Your task to perform on an android device: Do I have any events this weekend? Image 0: 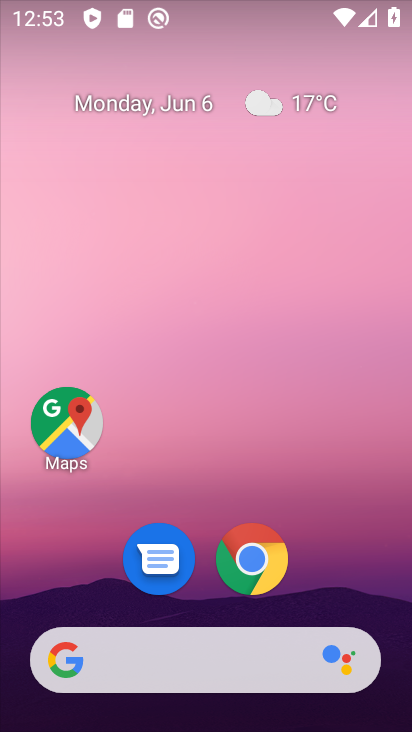
Step 0: drag from (179, 689) to (248, 136)
Your task to perform on an android device: Do I have any events this weekend? Image 1: 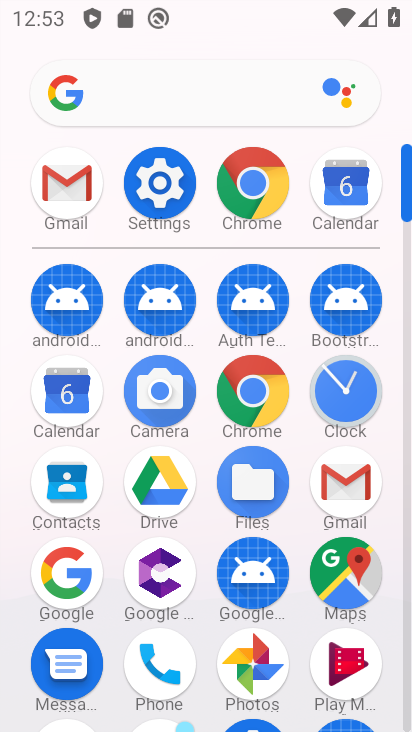
Step 1: click (90, 400)
Your task to perform on an android device: Do I have any events this weekend? Image 2: 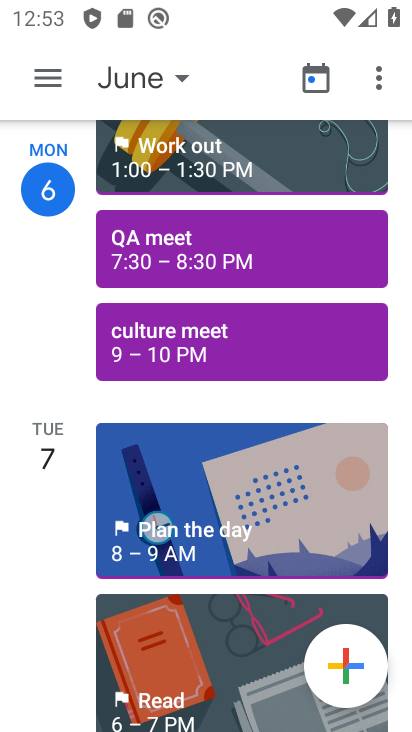
Step 2: click (165, 90)
Your task to perform on an android device: Do I have any events this weekend? Image 3: 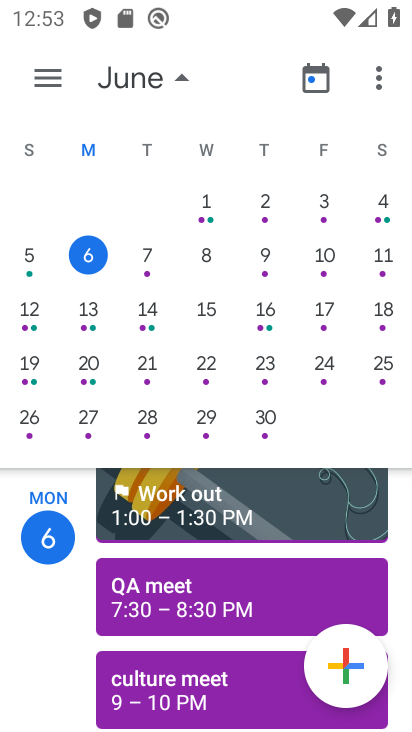
Step 3: click (371, 256)
Your task to perform on an android device: Do I have any events this weekend? Image 4: 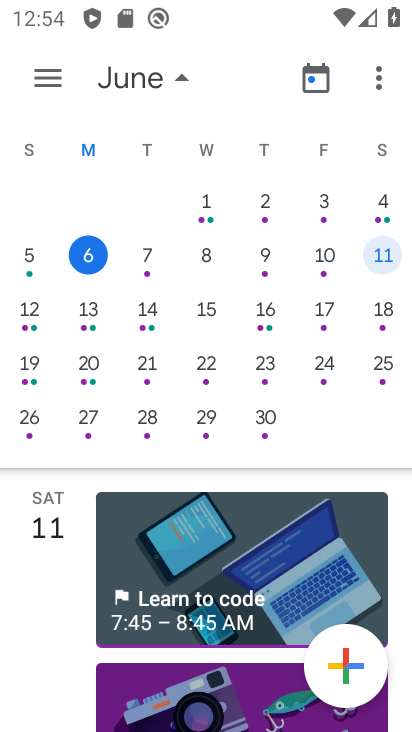
Step 4: task complete